Your task to perform on an android device: delete a single message in the gmail app Image 0: 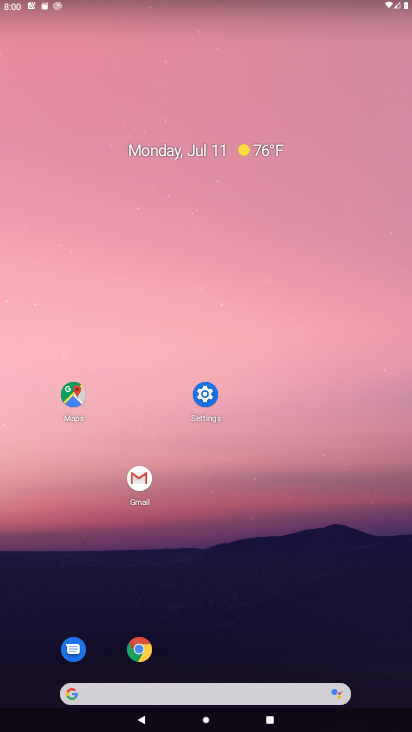
Step 0: click (138, 488)
Your task to perform on an android device: delete a single message in the gmail app Image 1: 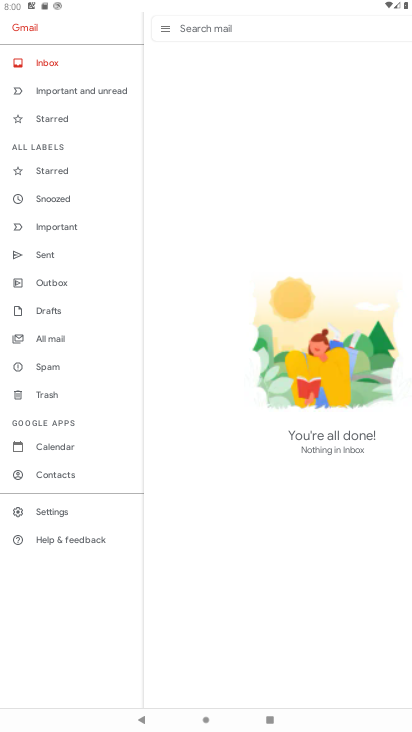
Step 1: task complete